Your task to perform on an android device: Do I have any events this weekend? Image 0: 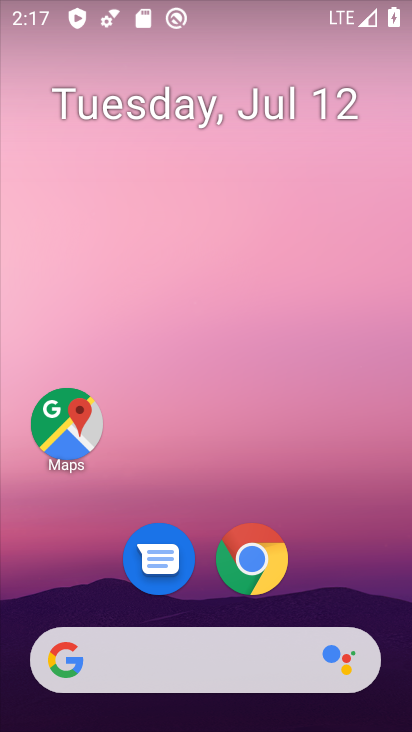
Step 0: drag from (391, 565) to (388, 117)
Your task to perform on an android device: Do I have any events this weekend? Image 1: 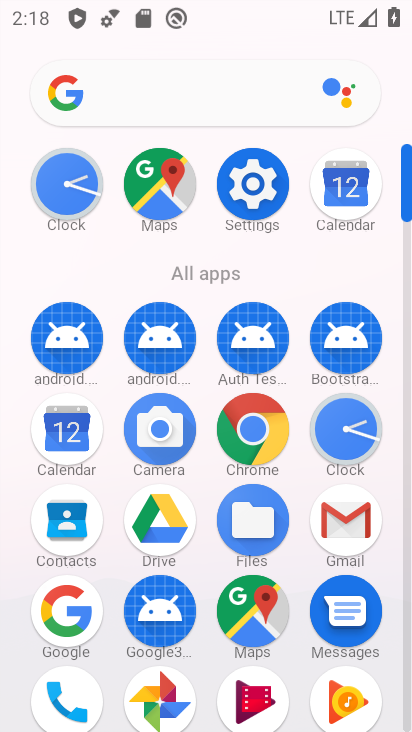
Step 1: click (354, 191)
Your task to perform on an android device: Do I have any events this weekend? Image 2: 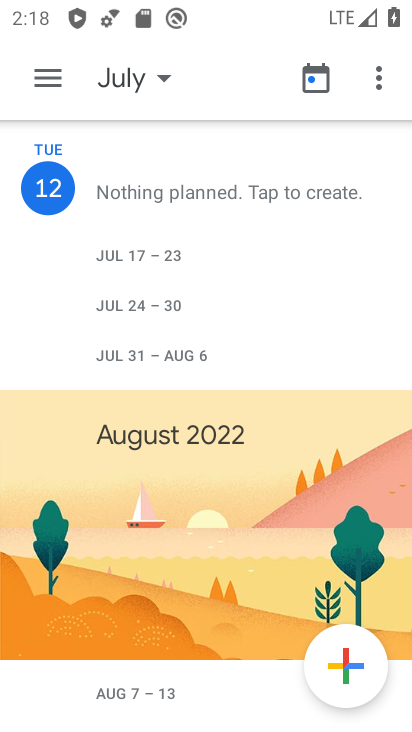
Step 2: drag from (287, 286) to (286, 396)
Your task to perform on an android device: Do I have any events this weekend? Image 3: 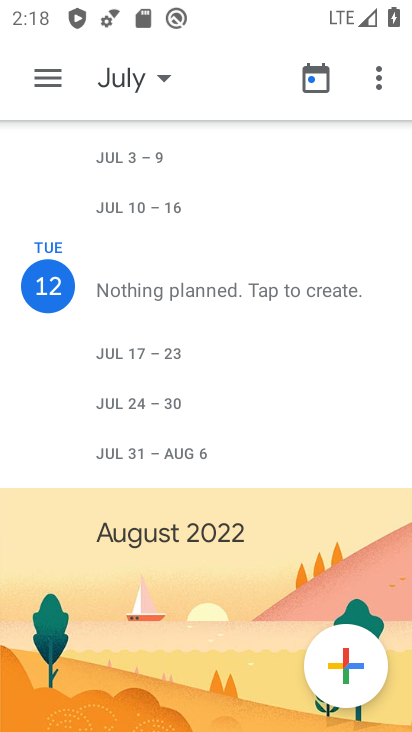
Step 3: drag from (280, 261) to (269, 353)
Your task to perform on an android device: Do I have any events this weekend? Image 4: 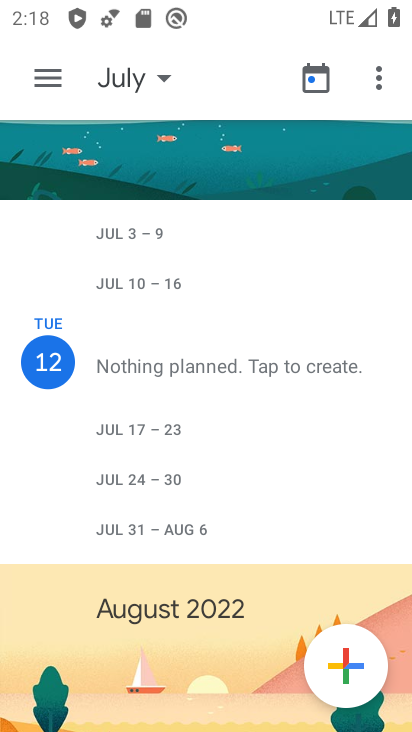
Step 4: drag from (252, 413) to (258, 267)
Your task to perform on an android device: Do I have any events this weekend? Image 5: 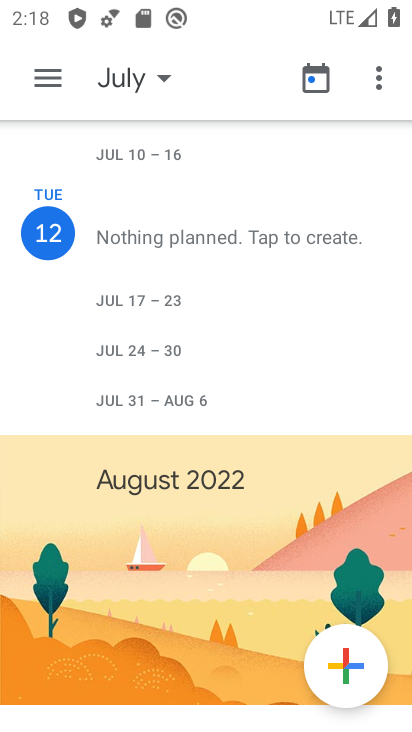
Step 5: drag from (246, 358) to (258, 244)
Your task to perform on an android device: Do I have any events this weekend? Image 6: 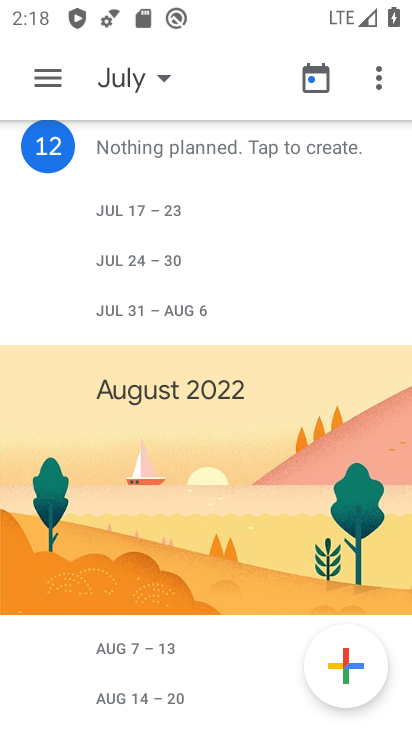
Step 6: click (176, 75)
Your task to perform on an android device: Do I have any events this weekend? Image 7: 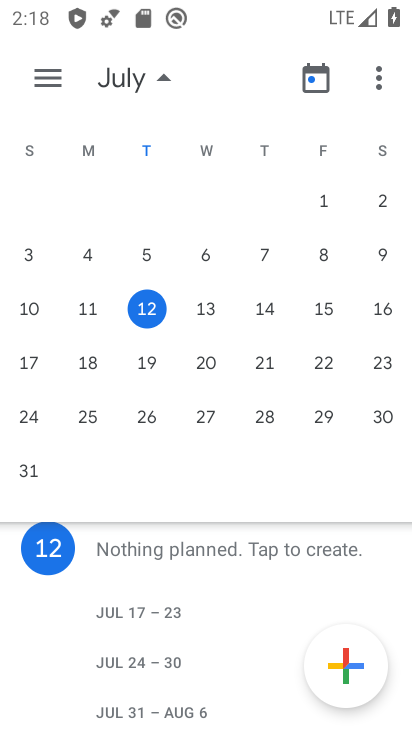
Step 7: click (389, 312)
Your task to perform on an android device: Do I have any events this weekend? Image 8: 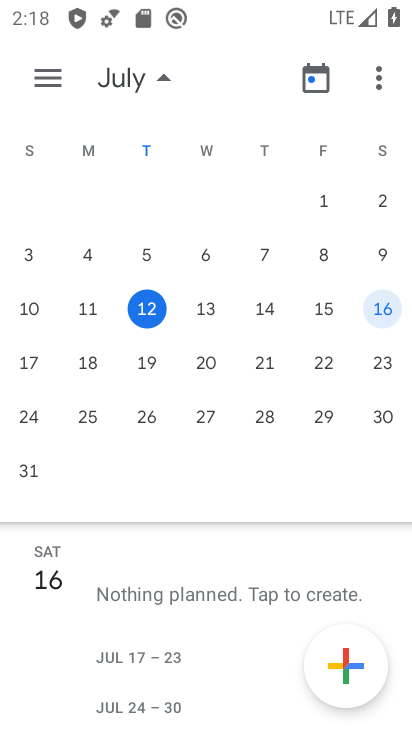
Step 8: task complete